Your task to perform on an android device: Search for seafood restaurants on Google Maps Image 0: 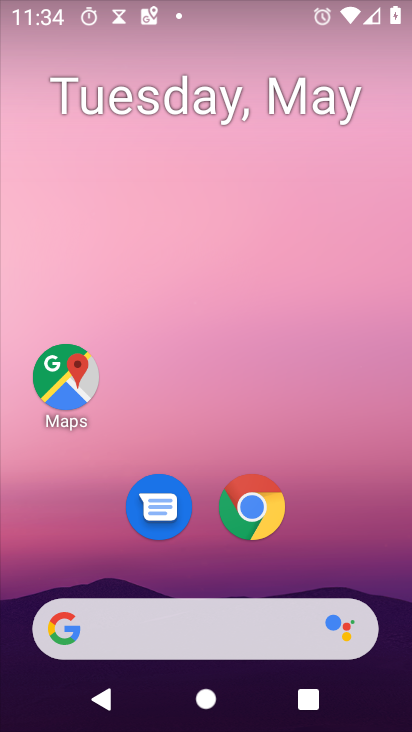
Step 0: click (83, 383)
Your task to perform on an android device: Search for seafood restaurants on Google Maps Image 1: 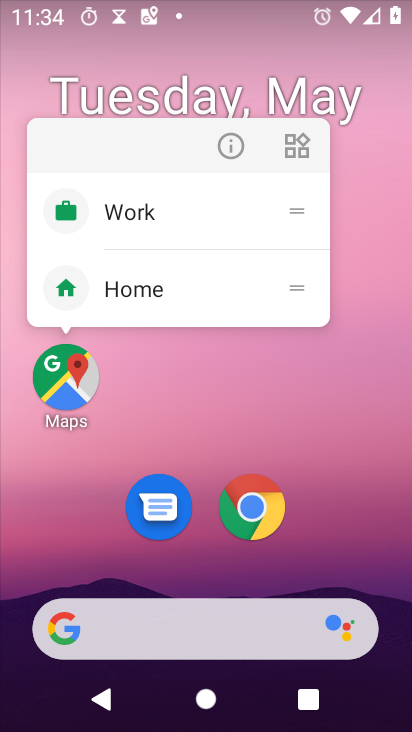
Step 1: click (52, 381)
Your task to perform on an android device: Search for seafood restaurants on Google Maps Image 2: 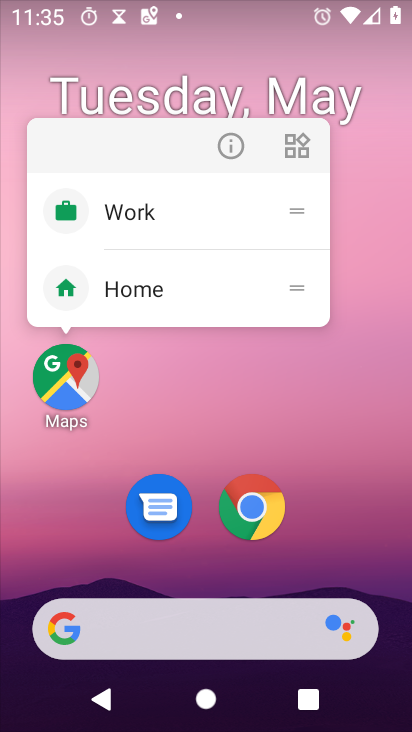
Step 2: click (52, 381)
Your task to perform on an android device: Search for seafood restaurants on Google Maps Image 3: 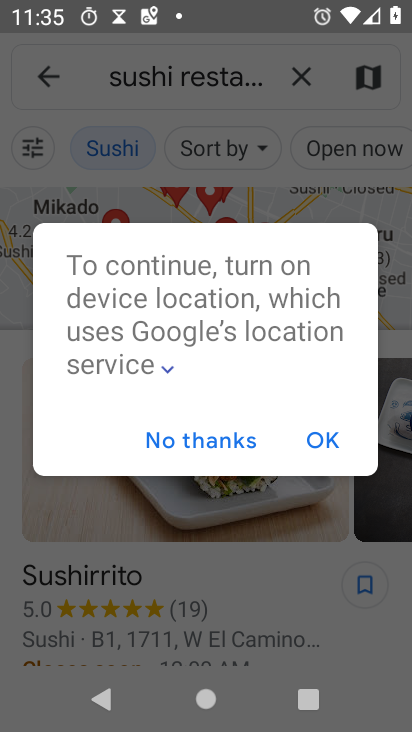
Step 3: click (317, 441)
Your task to perform on an android device: Search for seafood restaurants on Google Maps Image 4: 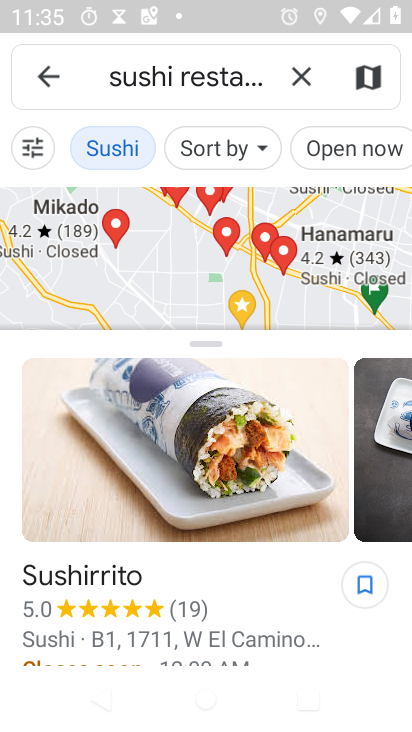
Step 4: click (301, 79)
Your task to perform on an android device: Search for seafood restaurants on Google Maps Image 5: 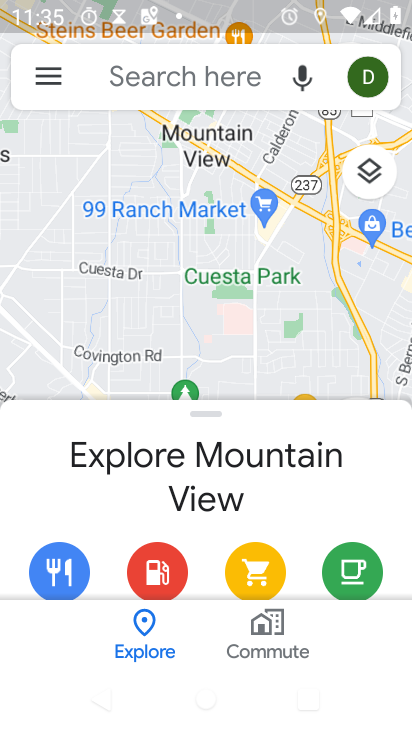
Step 5: click (234, 74)
Your task to perform on an android device: Search for seafood restaurants on Google Maps Image 6: 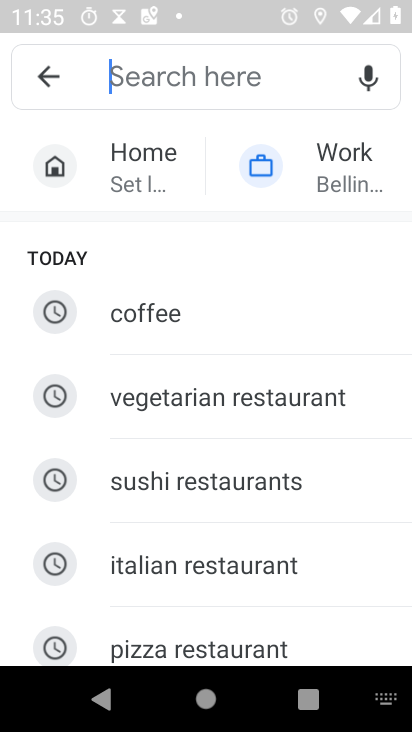
Step 6: drag from (143, 589) to (147, 178)
Your task to perform on an android device: Search for seafood restaurants on Google Maps Image 7: 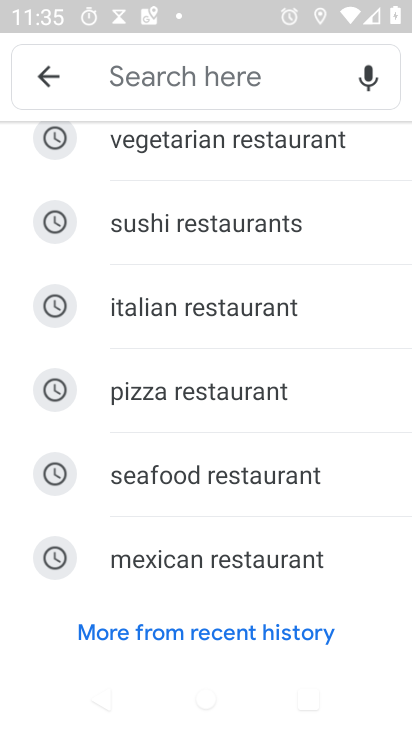
Step 7: click (187, 485)
Your task to perform on an android device: Search for seafood restaurants on Google Maps Image 8: 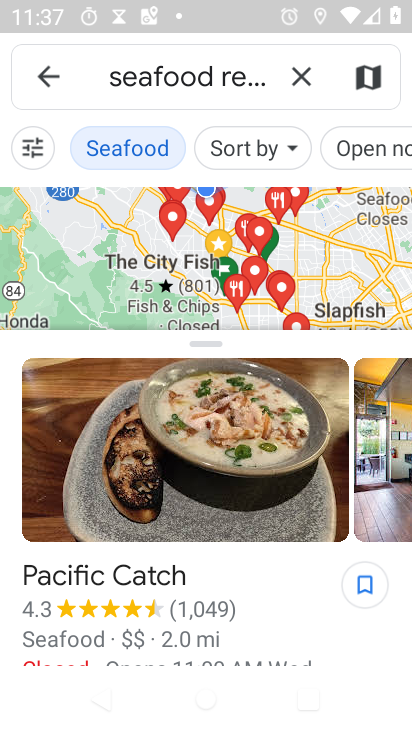
Step 8: task complete